Your task to perform on an android device: add a label to a message in the gmail app Image 0: 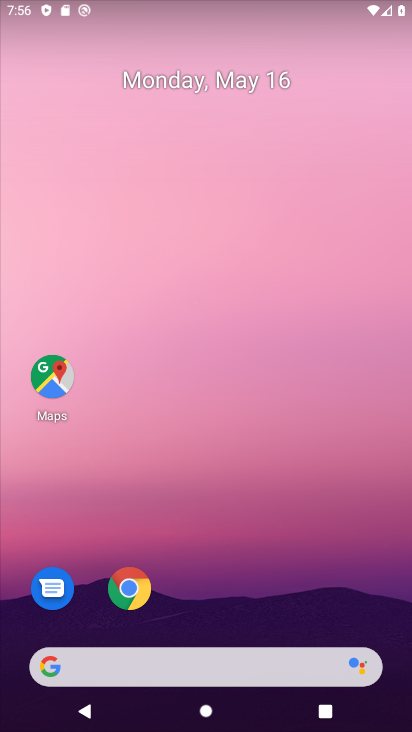
Step 0: drag from (306, 647) to (231, 147)
Your task to perform on an android device: add a label to a message in the gmail app Image 1: 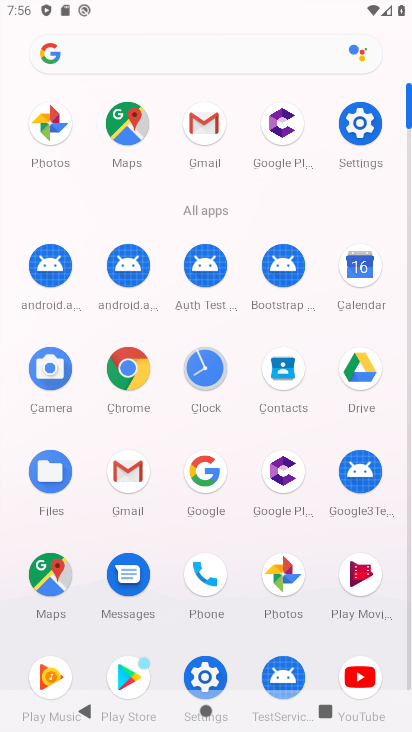
Step 1: click (128, 459)
Your task to perform on an android device: add a label to a message in the gmail app Image 2: 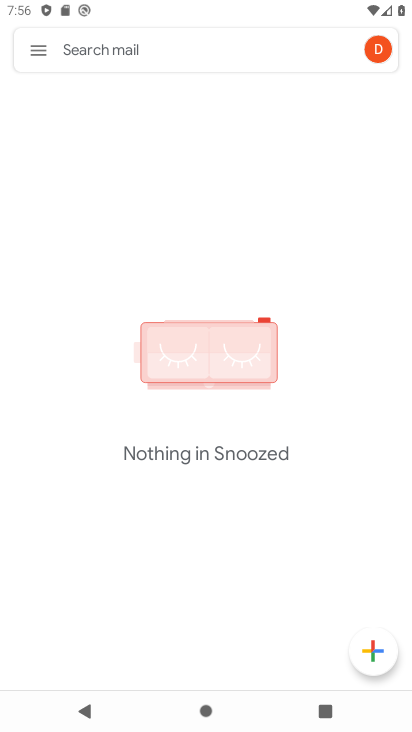
Step 2: press back button
Your task to perform on an android device: add a label to a message in the gmail app Image 3: 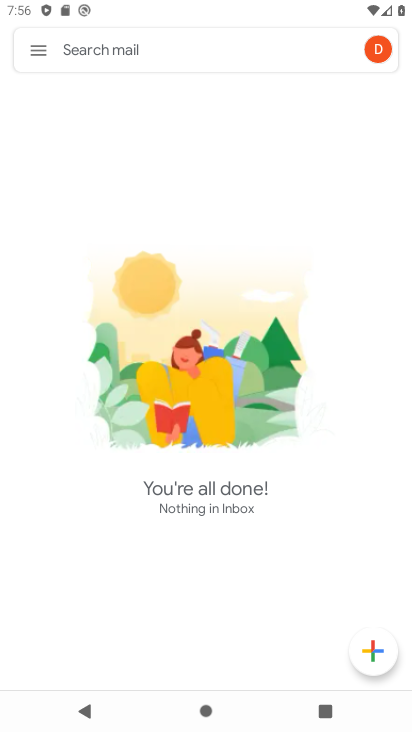
Step 3: press home button
Your task to perform on an android device: add a label to a message in the gmail app Image 4: 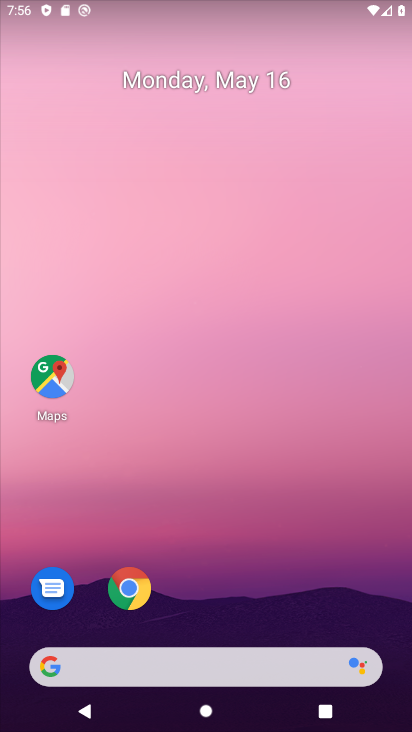
Step 4: drag from (212, 632) to (136, 201)
Your task to perform on an android device: add a label to a message in the gmail app Image 5: 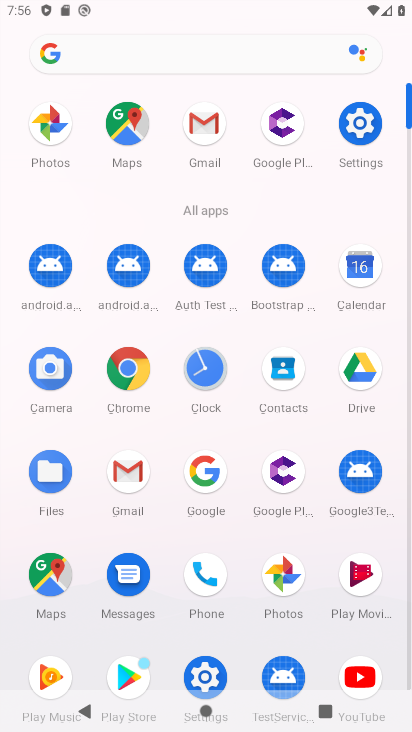
Step 5: click (139, 463)
Your task to perform on an android device: add a label to a message in the gmail app Image 6: 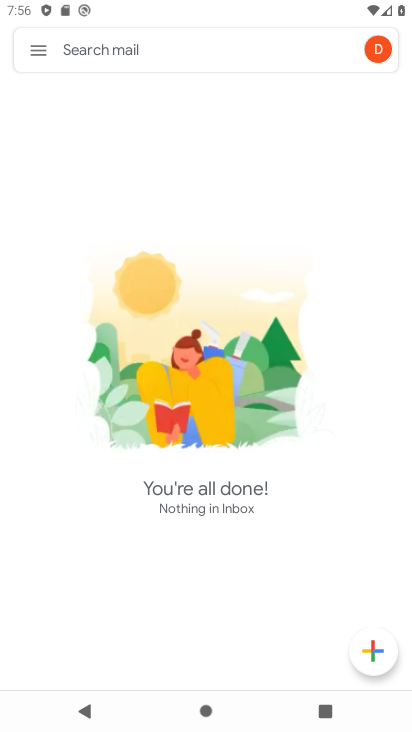
Step 6: click (25, 53)
Your task to perform on an android device: add a label to a message in the gmail app Image 7: 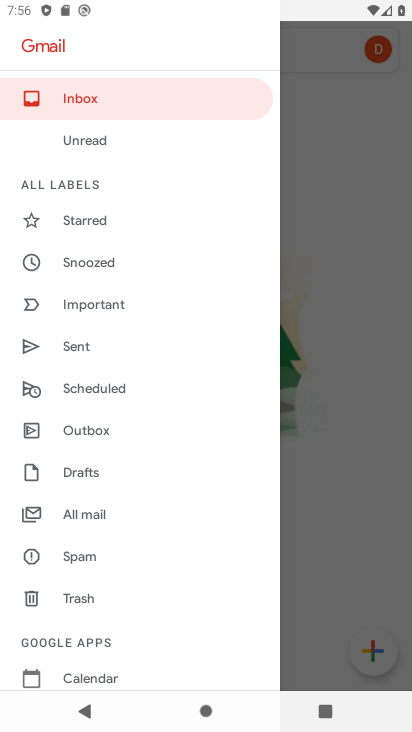
Step 7: click (79, 515)
Your task to perform on an android device: add a label to a message in the gmail app Image 8: 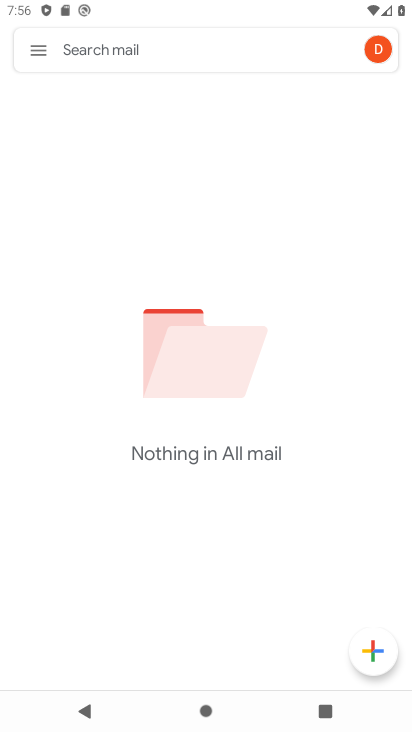
Step 8: task complete